Your task to perform on an android device: Go to Android settings Image 0: 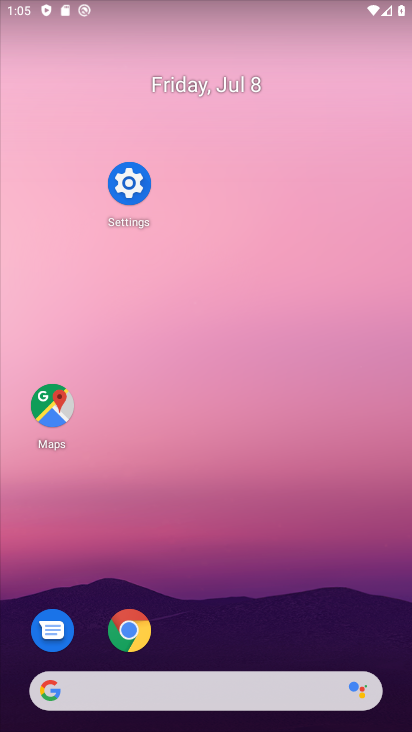
Step 0: click (138, 188)
Your task to perform on an android device: Go to Android settings Image 1: 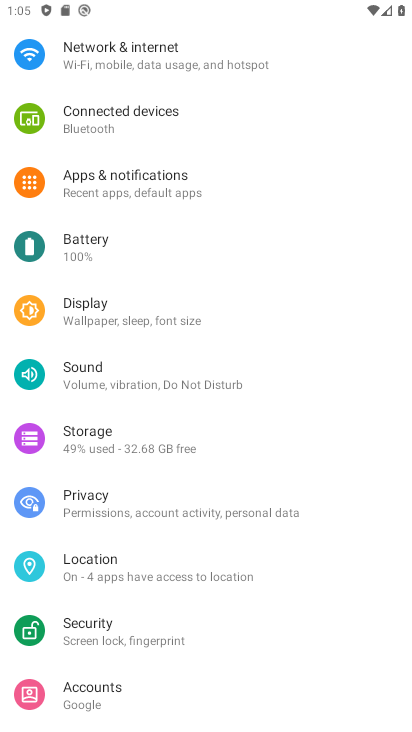
Step 1: task complete